Your task to perform on an android device: toggle javascript in the chrome app Image 0: 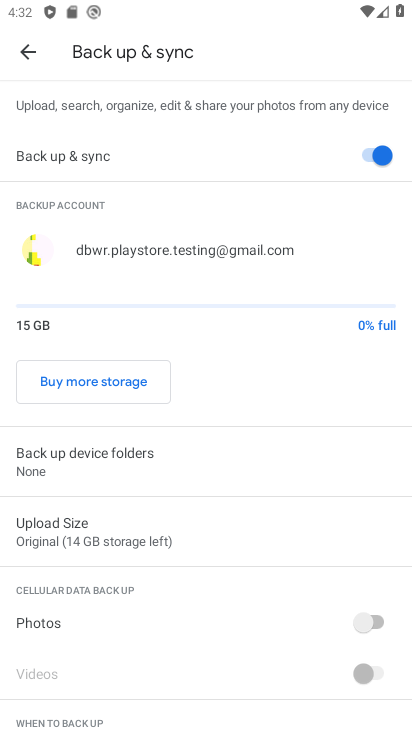
Step 0: press home button
Your task to perform on an android device: toggle javascript in the chrome app Image 1: 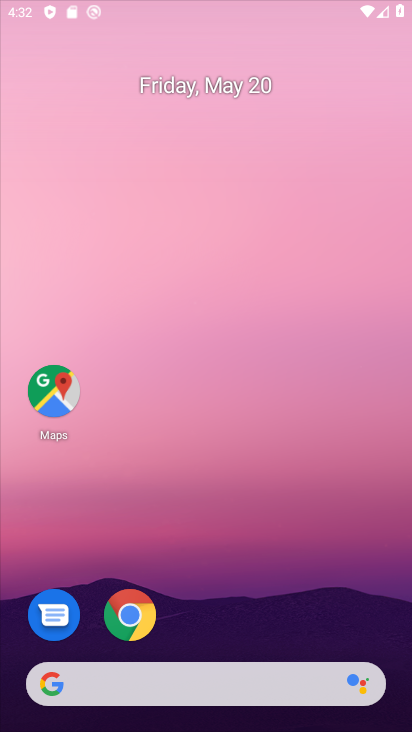
Step 1: drag from (175, 660) to (239, 94)
Your task to perform on an android device: toggle javascript in the chrome app Image 2: 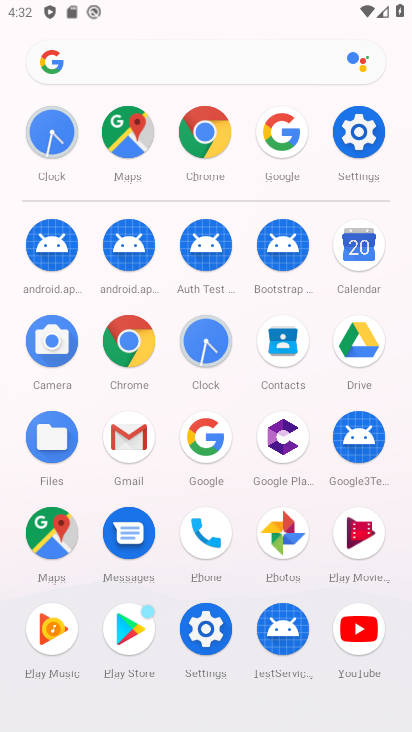
Step 2: click (137, 360)
Your task to perform on an android device: toggle javascript in the chrome app Image 3: 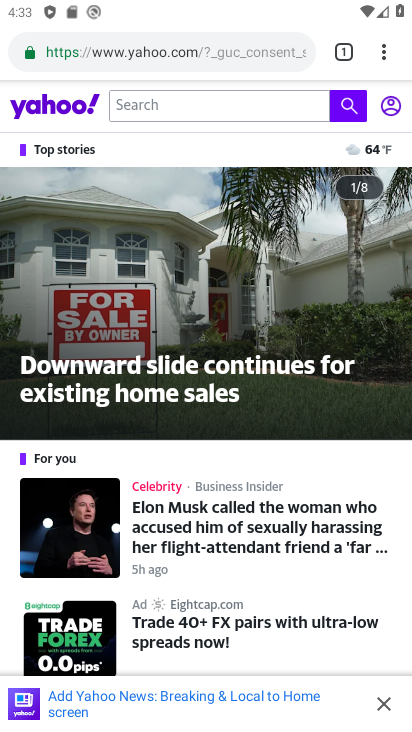
Step 3: click (386, 63)
Your task to perform on an android device: toggle javascript in the chrome app Image 4: 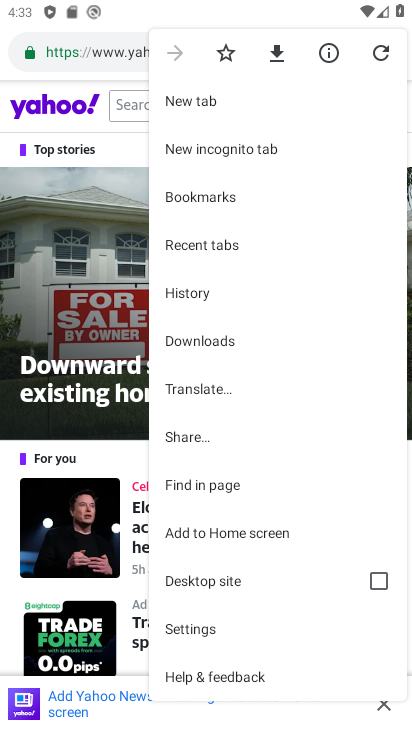
Step 4: click (199, 625)
Your task to perform on an android device: toggle javascript in the chrome app Image 5: 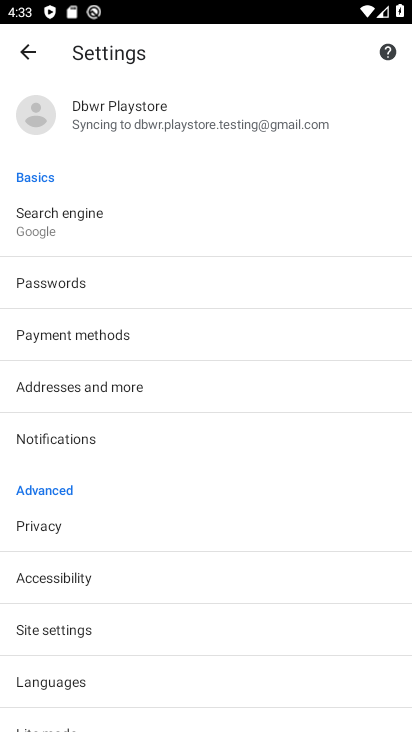
Step 5: drag from (177, 318) to (175, 271)
Your task to perform on an android device: toggle javascript in the chrome app Image 6: 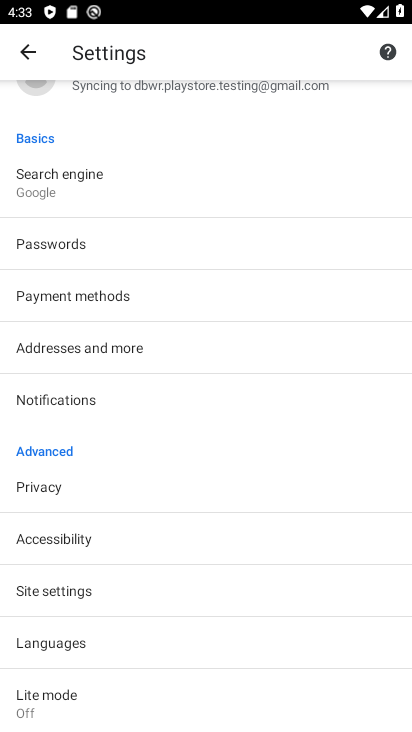
Step 6: click (52, 595)
Your task to perform on an android device: toggle javascript in the chrome app Image 7: 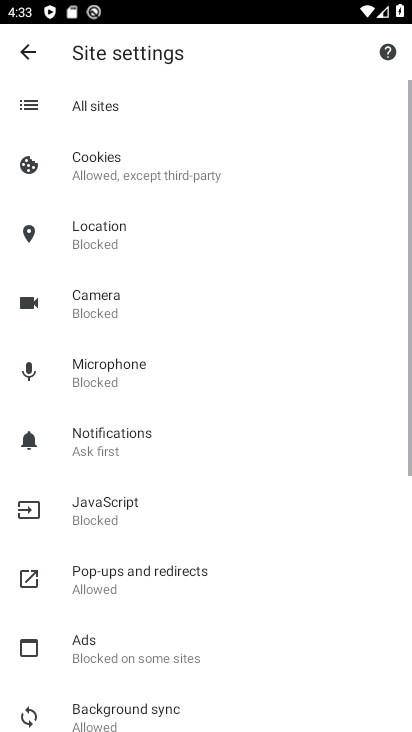
Step 7: click (50, 592)
Your task to perform on an android device: toggle javascript in the chrome app Image 8: 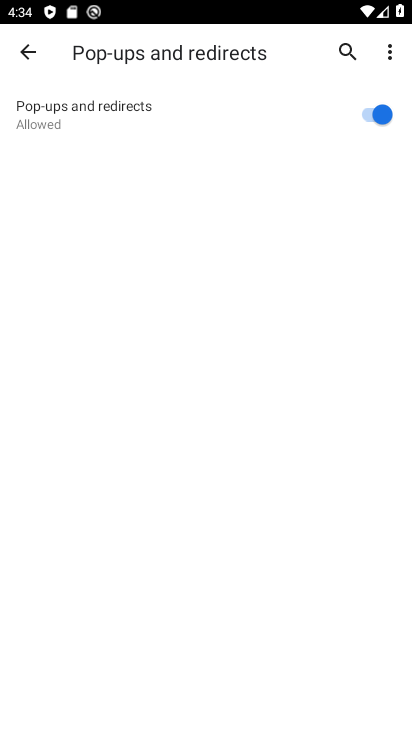
Step 8: click (360, 120)
Your task to perform on an android device: toggle javascript in the chrome app Image 9: 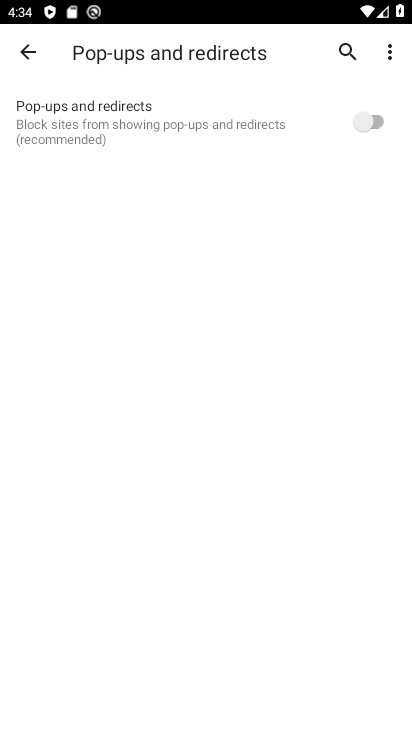
Step 9: task complete